Your task to perform on an android device: Open calendar and show me the fourth week of next month Image 0: 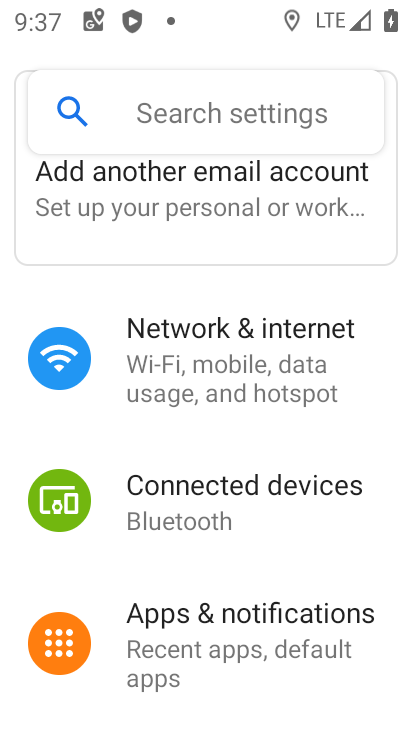
Step 0: press home button
Your task to perform on an android device: Open calendar and show me the fourth week of next month Image 1: 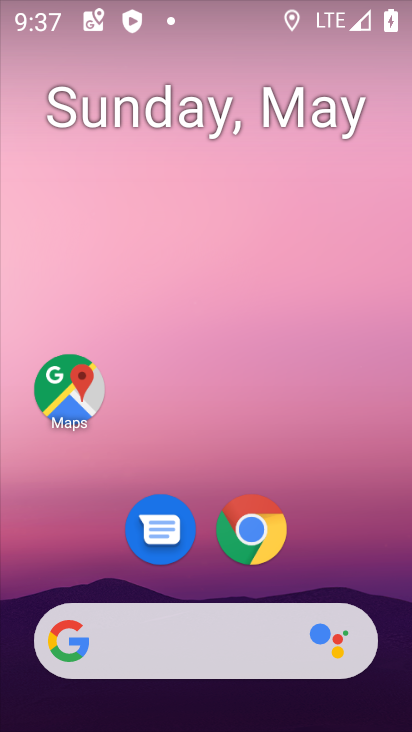
Step 1: drag from (343, 554) to (332, 36)
Your task to perform on an android device: Open calendar and show me the fourth week of next month Image 2: 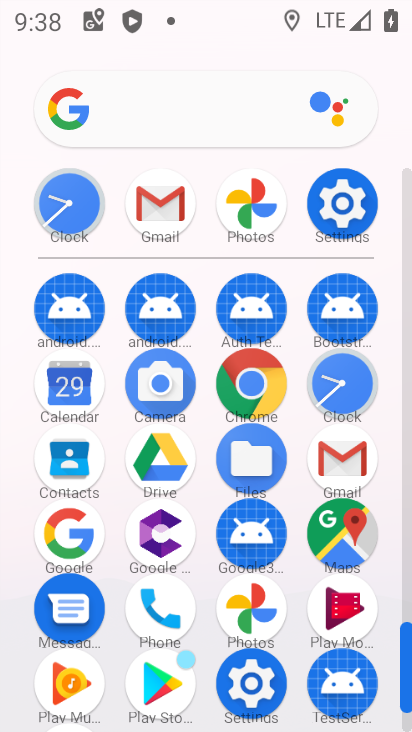
Step 2: click (90, 398)
Your task to perform on an android device: Open calendar and show me the fourth week of next month Image 3: 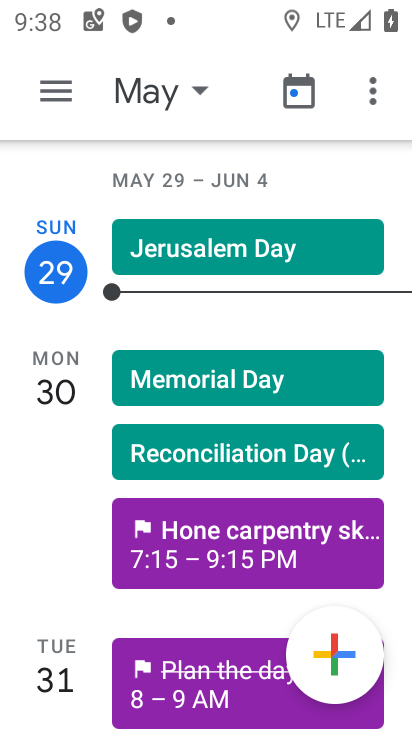
Step 3: task complete